Your task to perform on an android device: remove spam from my inbox in the gmail app Image 0: 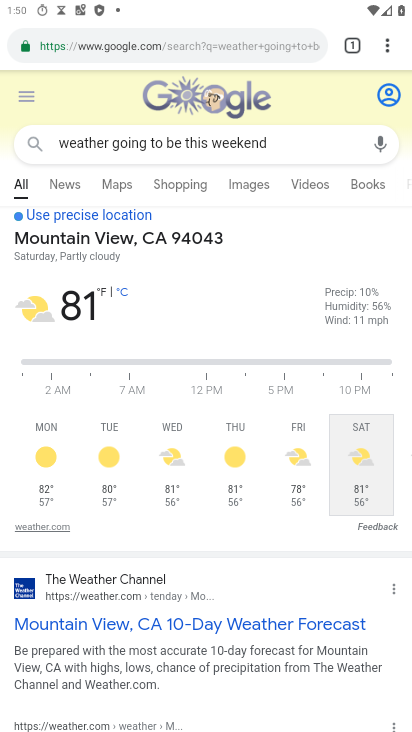
Step 0: drag from (389, 39) to (376, 196)
Your task to perform on an android device: remove spam from my inbox in the gmail app Image 1: 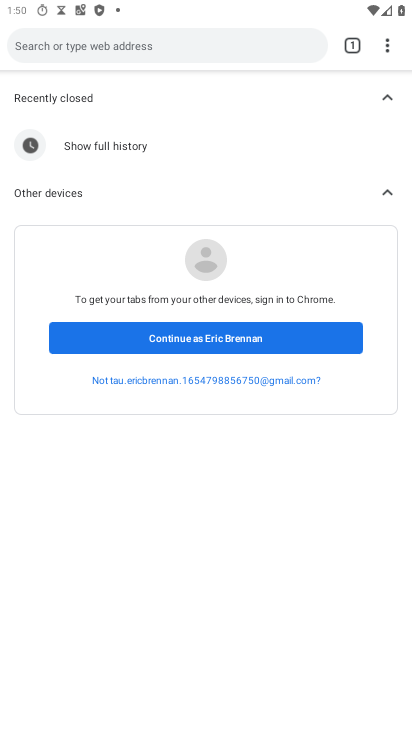
Step 1: press home button
Your task to perform on an android device: remove spam from my inbox in the gmail app Image 2: 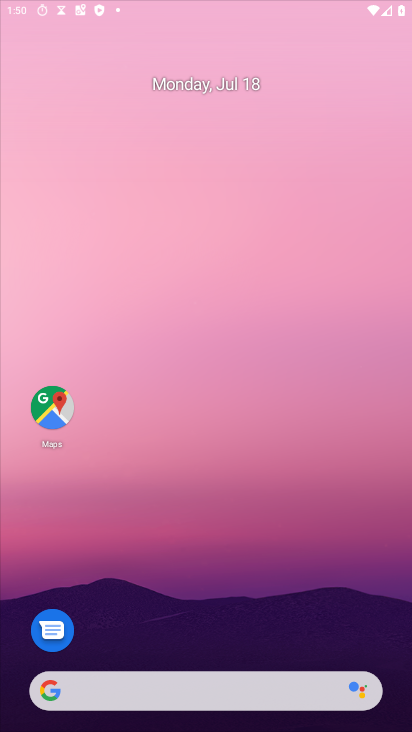
Step 2: drag from (212, 576) to (258, 1)
Your task to perform on an android device: remove spam from my inbox in the gmail app Image 3: 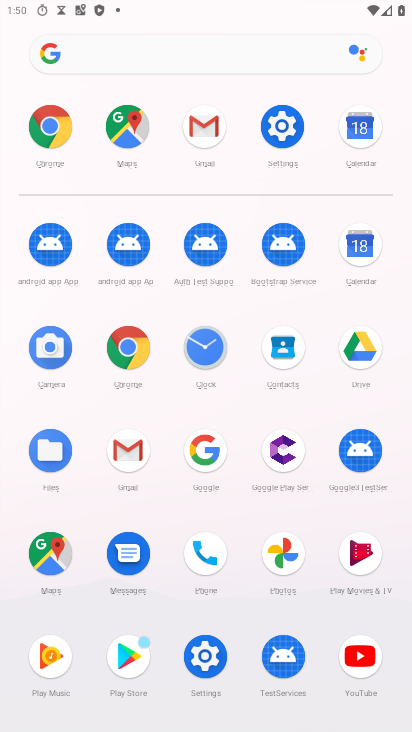
Step 3: click (136, 454)
Your task to perform on an android device: remove spam from my inbox in the gmail app Image 4: 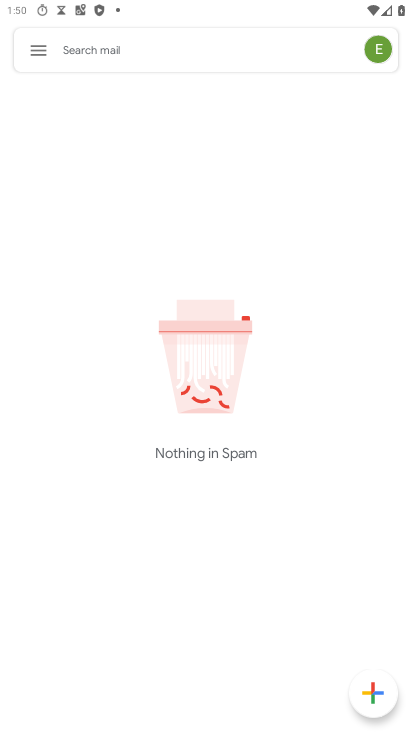
Step 4: click (38, 37)
Your task to perform on an android device: remove spam from my inbox in the gmail app Image 5: 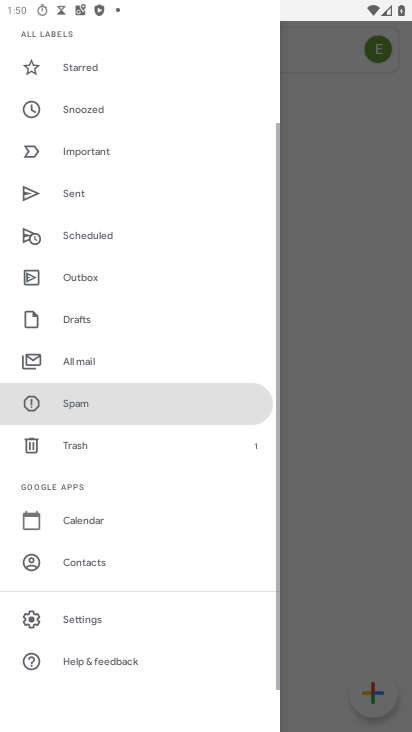
Step 5: click (89, 404)
Your task to perform on an android device: remove spam from my inbox in the gmail app Image 6: 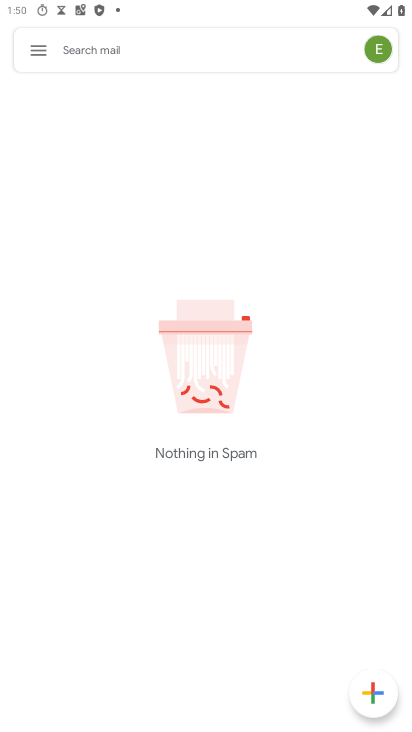
Step 6: task complete